Your task to perform on an android device: turn on wifi Image 0: 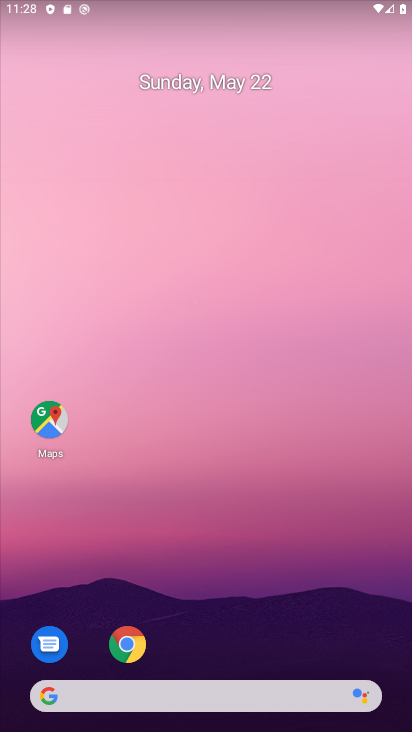
Step 0: drag from (208, 0) to (278, 656)
Your task to perform on an android device: turn on wifi Image 1: 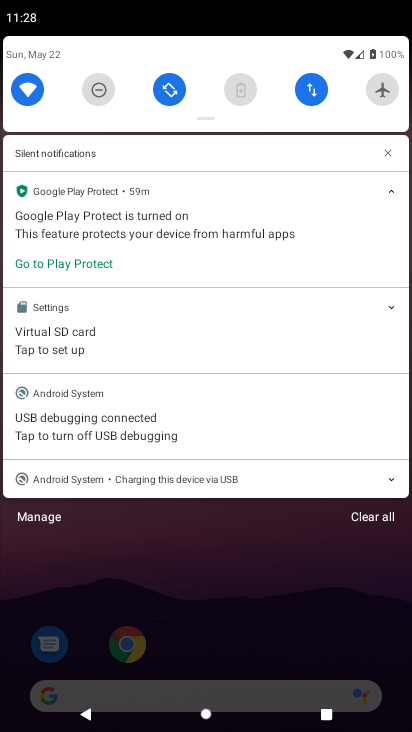
Step 1: task complete